Your task to perform on an android device: Go to Reddit.com Image 0: 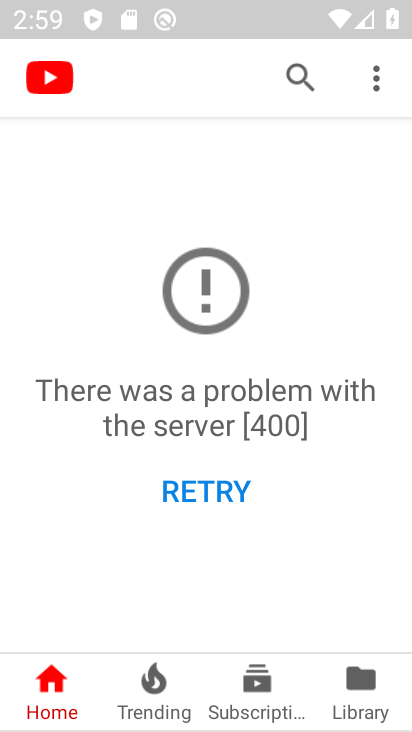
Step 0: press home button
Your task to perform on an android device: Go to Reddit.com Image 1: 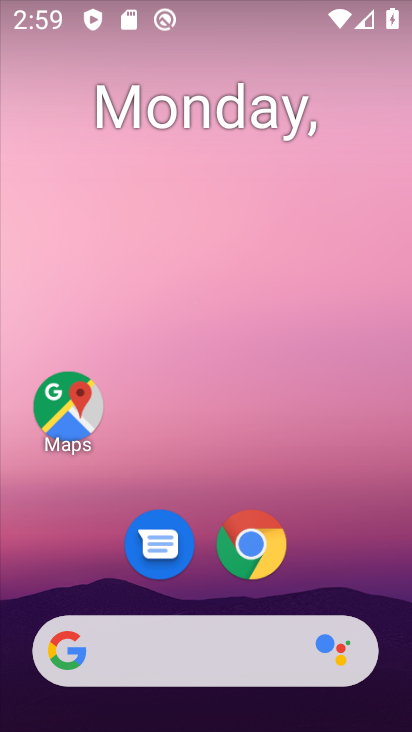
Step 1: click (231, 555)
Your task to perform on an android device: Go to Reddit.com Image 2: 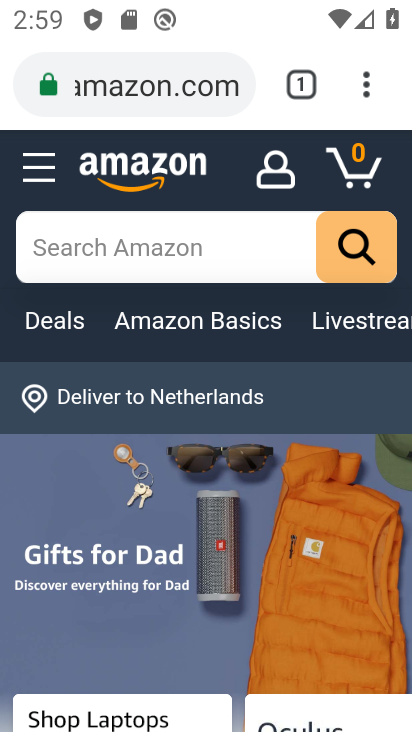
Step 2: click (293, 91)
Your task to perform on an android device: Go to Reddit.com Image 3: 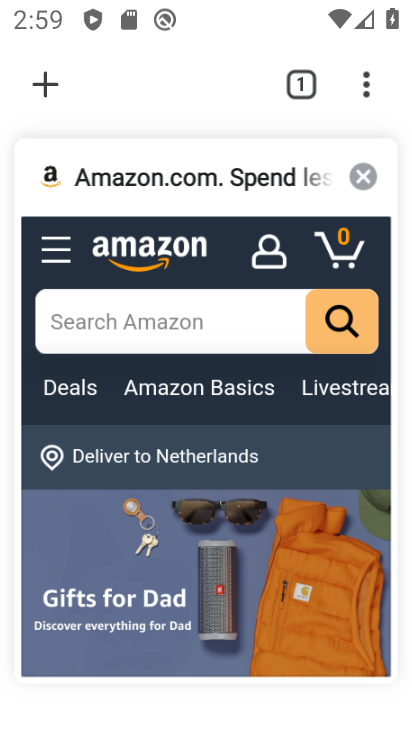
Step 3: click (366, 176)
Your task to perform on an android device: Go to Reddit.com Image 4: 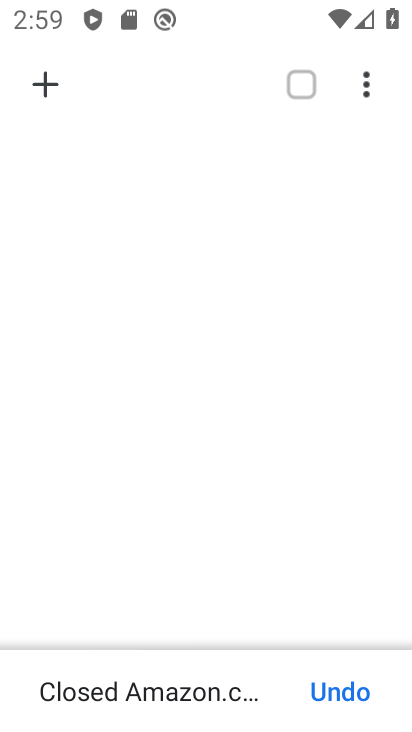
Step 4: click (38, 84)
Your task to perform on an android device: Go to Reddit.com Image 5: 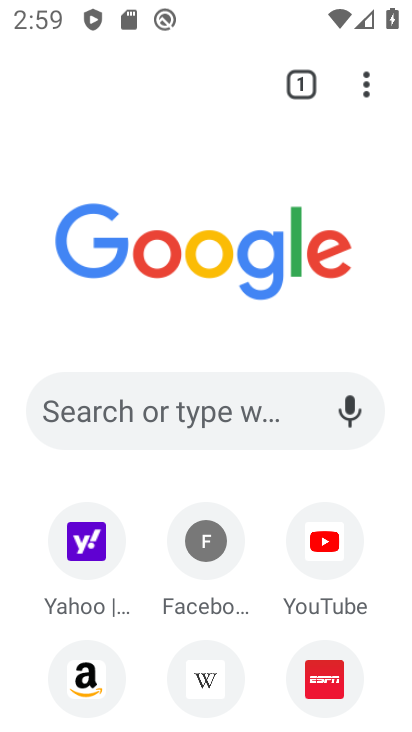
Step 5: click (127, 406)
Your task to perform on an android device: Go to Reddit.com Image 6: 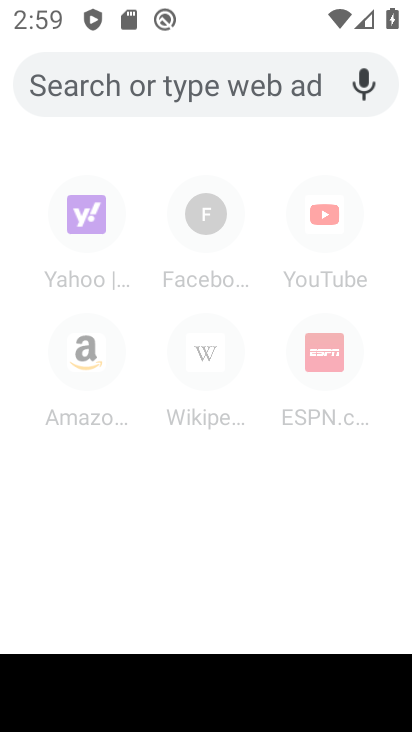
Step 6: type "Reddit.com"
Your task to perform on an android device: Go to Reddit.com Image 7: 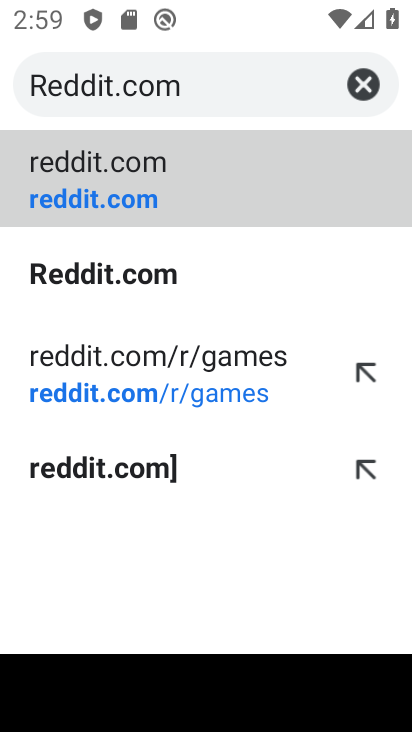
Step 7: click (101, 183)
Your task to perform on an android device: Go to Reddit.com Image 8: 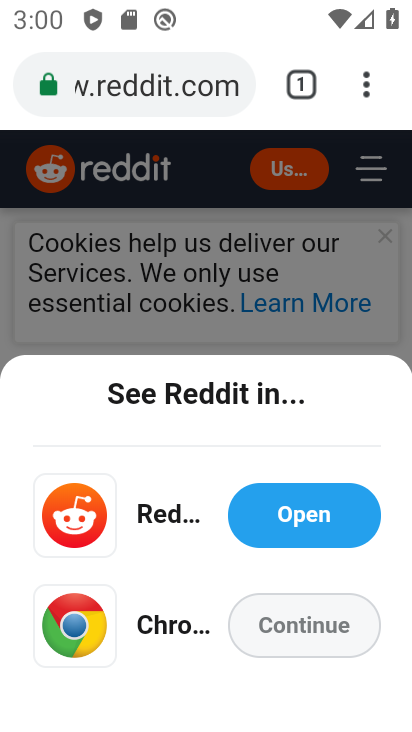
Step 8: click (329, 628)
Your task to perform on an android device: Go to Reddit.com Image 9: 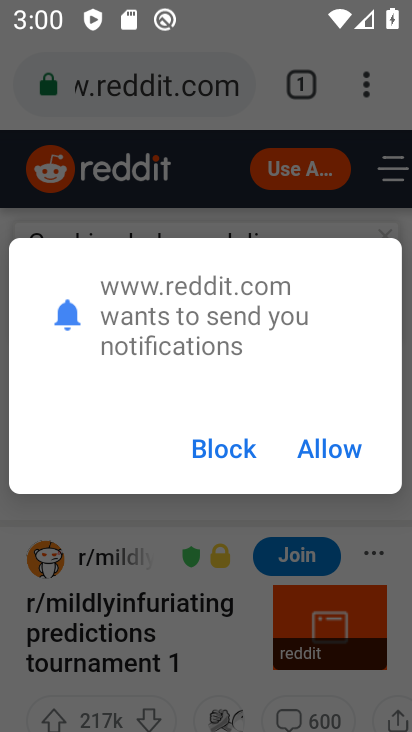
Step 9: click (228, 452)
Your task to perform on an android device: Go to Reddit.com Image 10: 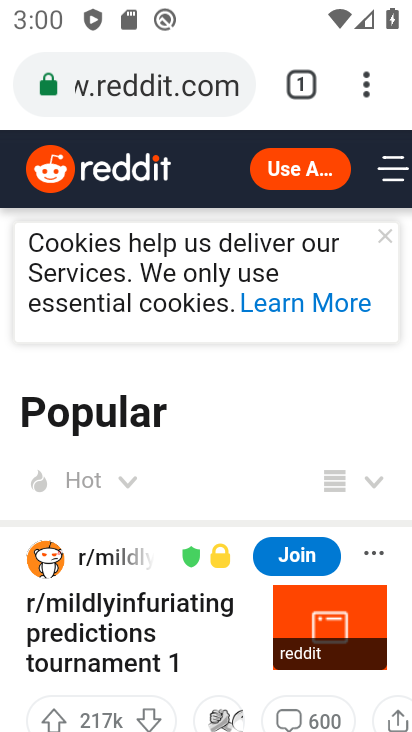
Step 10: task complete